Your task to perform on an android device: toggle sleep mode Image 0: 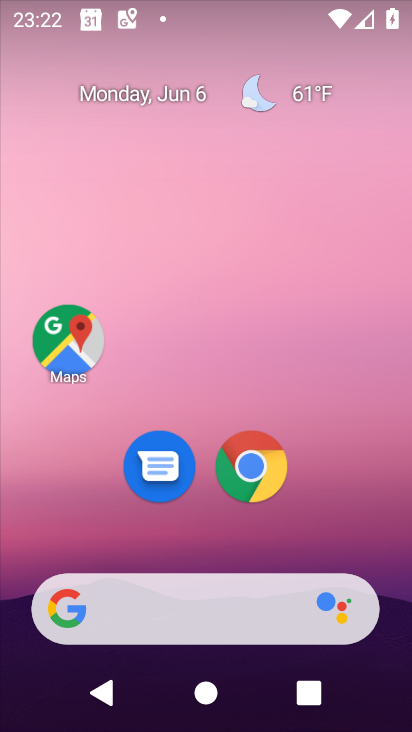
Step 0: press home button
Your task to perform on an android device: toggle sleep mode Image 1: 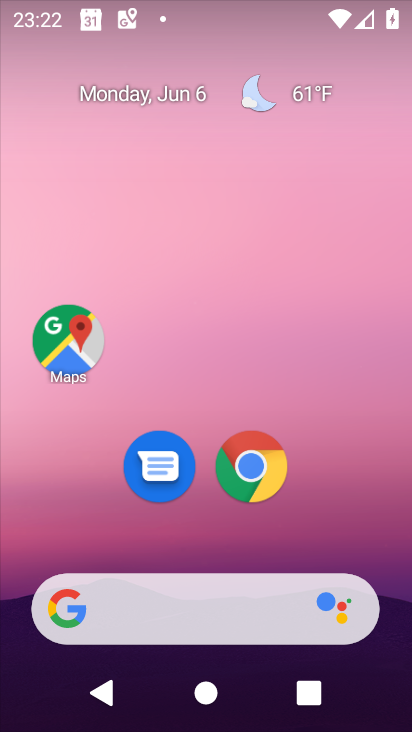
Step 1: drag from (336, 527) to (307, 2)
Your task to perform on an android device: toggle sleep mode Image 2: 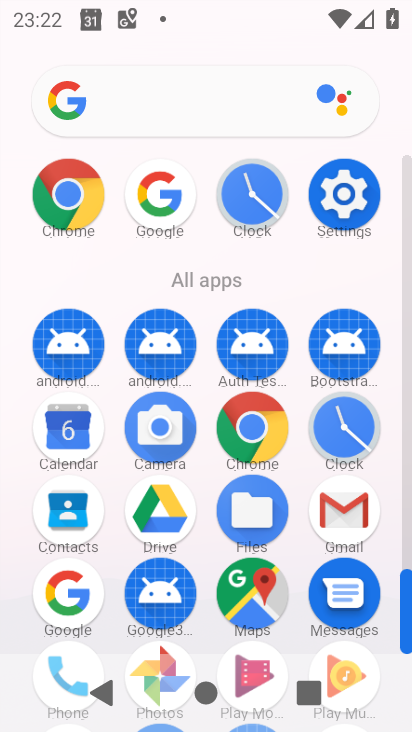
Step 2: click (349, 173)
Your task to perform on an android device: toggle sleep mode Image 3: 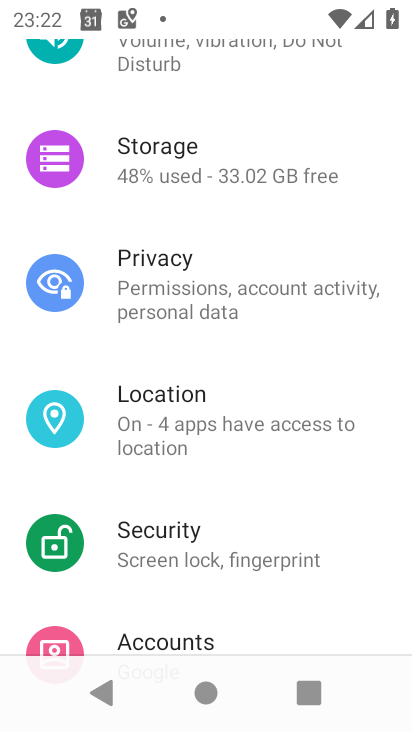
Step 3: drag from (281, 137) to (268, 638)
Your task to perform on an android device: toggle sleep mode Image 4: 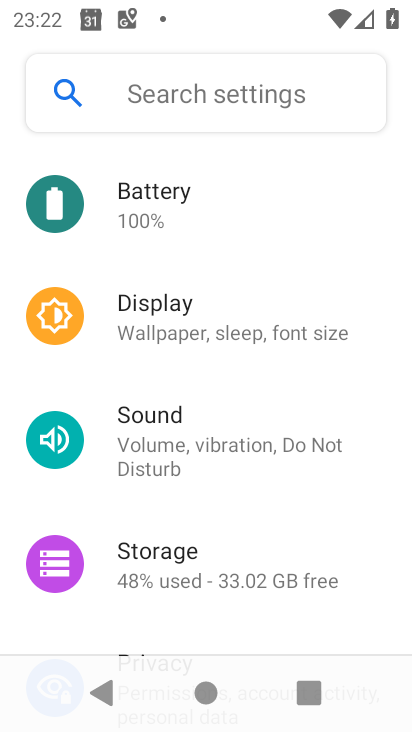
Step 4: click (146, 309)
Your task to perform on an android device: toggle sleep mode Image 5: 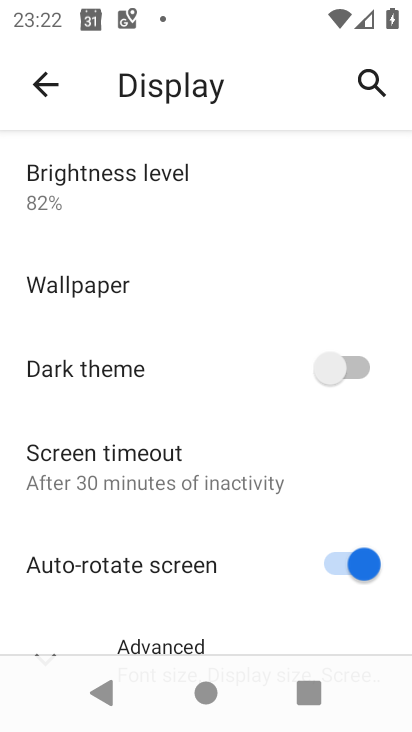
Step 5: task complete